Your task to perform on an android device: turn on notifications settings in the gmail app Image 0: 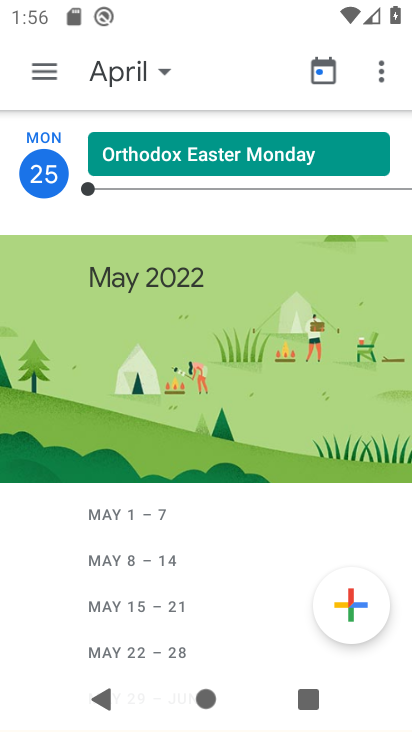
Step 0: press home button
Your task to perform on an android device: turn on notifications settings in the gmail app Image 1: 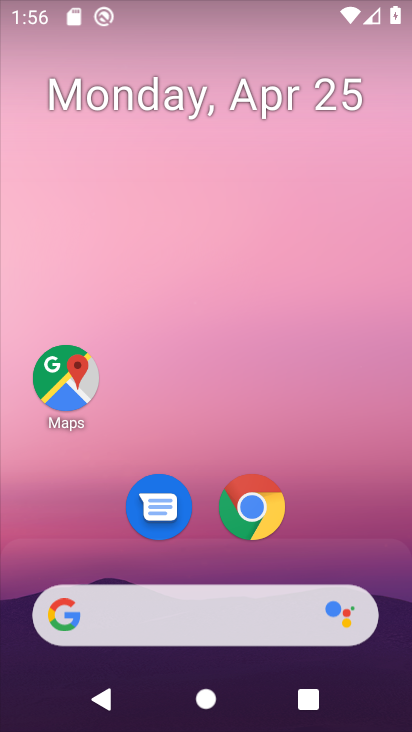
Step 1: drag from (142, 626) to (281, 150)
Your task to perform on an android device: turn on notifications settings in the gmail app Image 2: 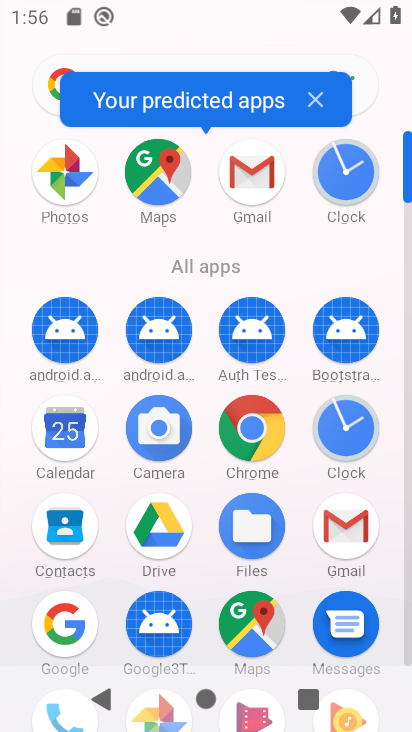
Step 2: click (240, 189)
Your task to perform on an android device: turn on notifications settings in the gmail app Image 3: 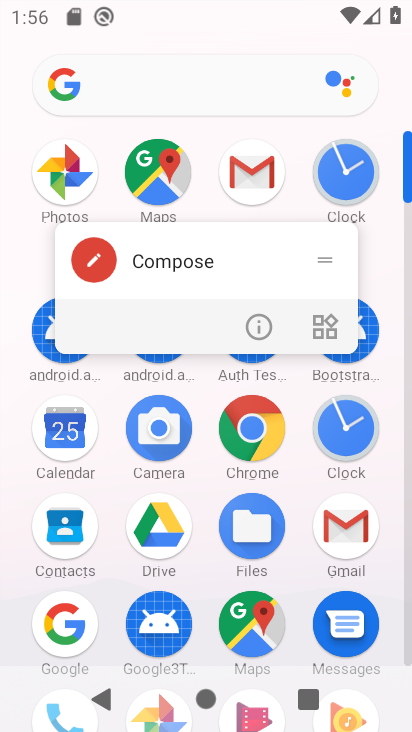
Step 3: click (251, 176)
Your task to perform on an android device: turn on notifications settings in the gmail app Image 4: 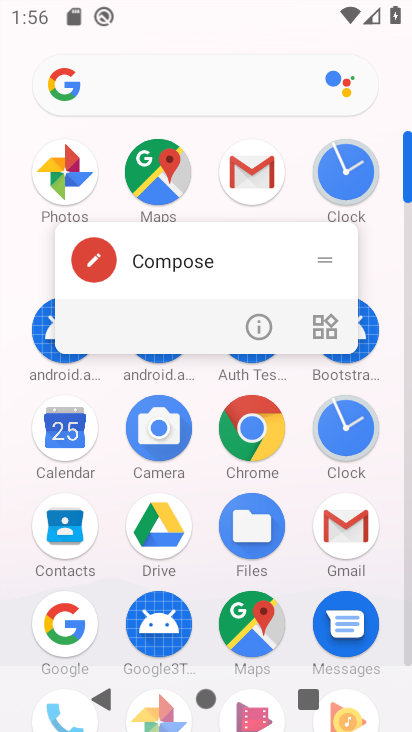
Step 4: click (245, 189)
Your task to perform on an android device: turn on notifications settings in the gmail app Image 5: 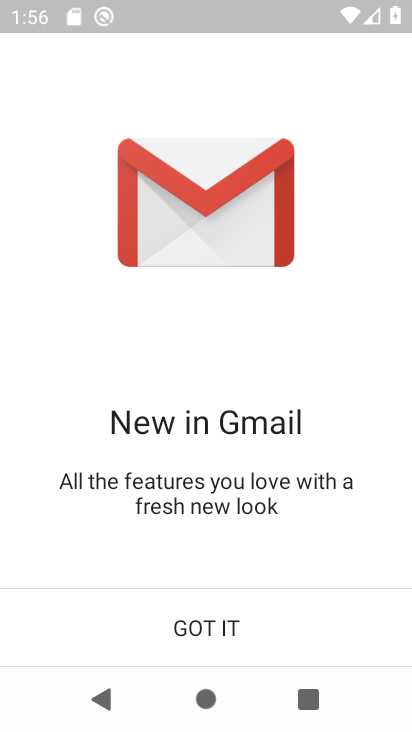
Step 5: click (195, 621)
Your task to perform on an android device: turn on notifications settings in the gmail app Image 6: 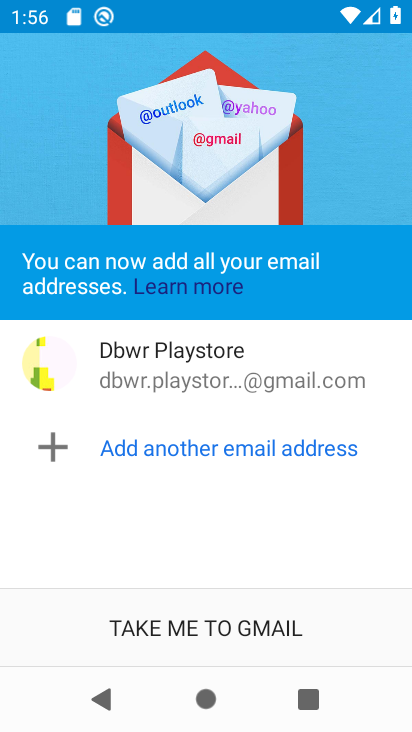
Step 6: click (195, 626)
Your task to perform on an android device: turn on notifications settings in the gmail app Image 7: 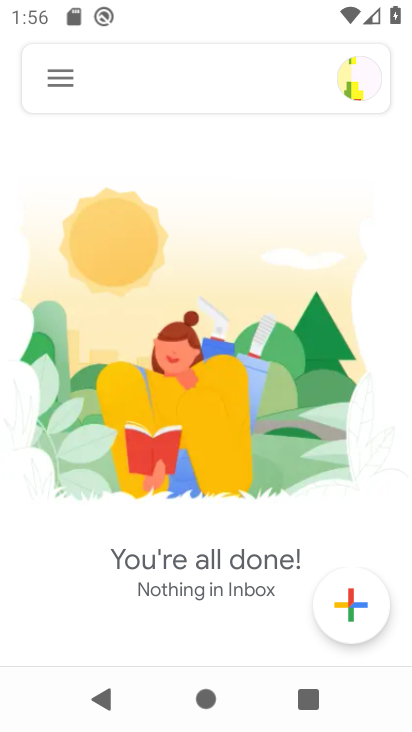
Step 7: click (61, 77)
Your task to perform on an android device: turn on notifications settings in the gmail app Image 8: 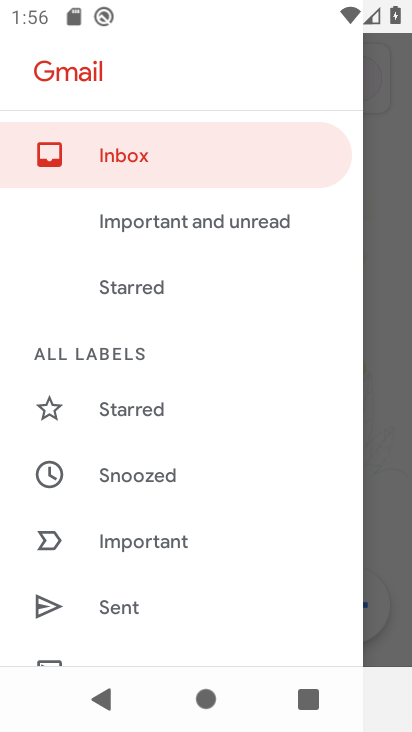
Step 8: drag from (163, 595) to (285, 86)
Your task to perform on an android device: turn on notifications settings in the gmail app Image 9: 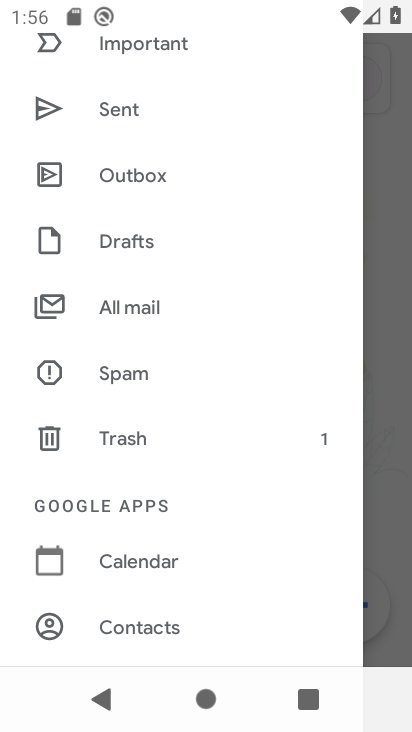
Step 9: drag from (204, 572) to (308, 85)
Your task to perform on an android device: turn on notifications settings in the gmail app Image 10: 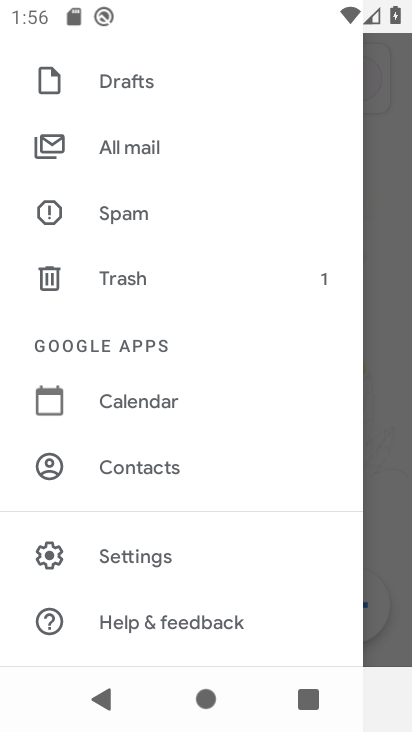
Step 10: click (150, 559)
Your task to perform on an android device: turn on notifications settings in the gmail app Image 11: 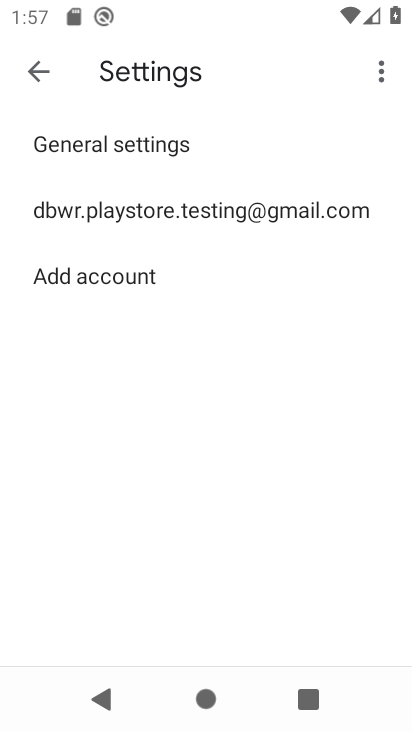
Step 11: click (244, 215)
Your task to perform on an android device: turn on notifications settings in the gmail app Image 12: 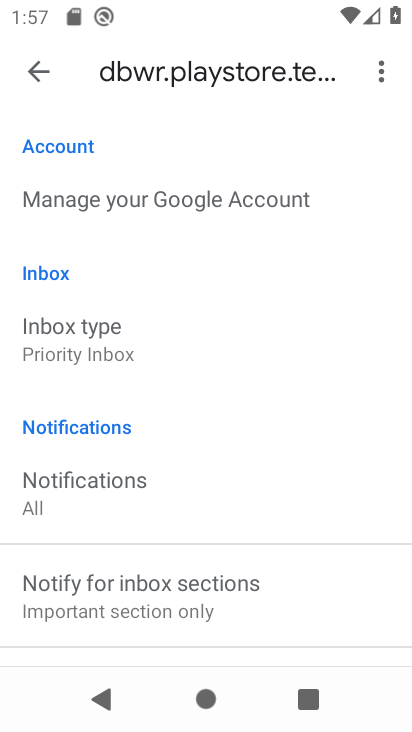
Step 12: click (124, 489)
Your task to perform on an android device: turn on notifications settings in the gmail app Image 13: 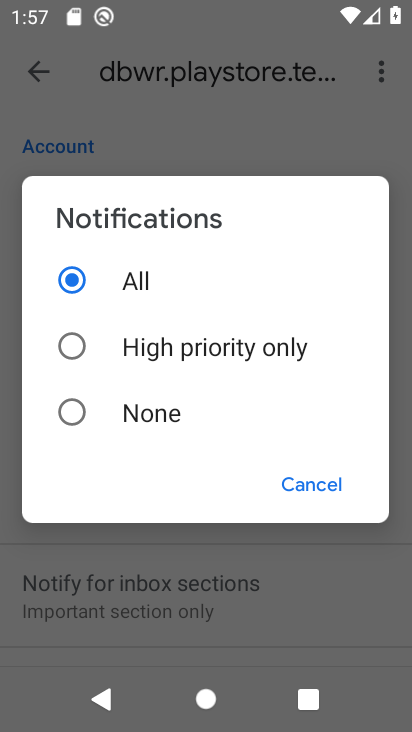
Step 13: task complete